Your task to perform on an android device: turn pop-ups on in chrome Image 0: 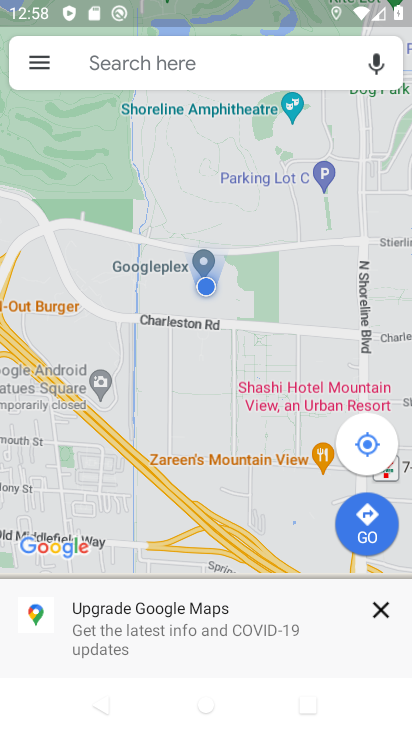
Step 0: press home button
Your task to perform on an android device: turn pop-ups on in chrome Image 1: 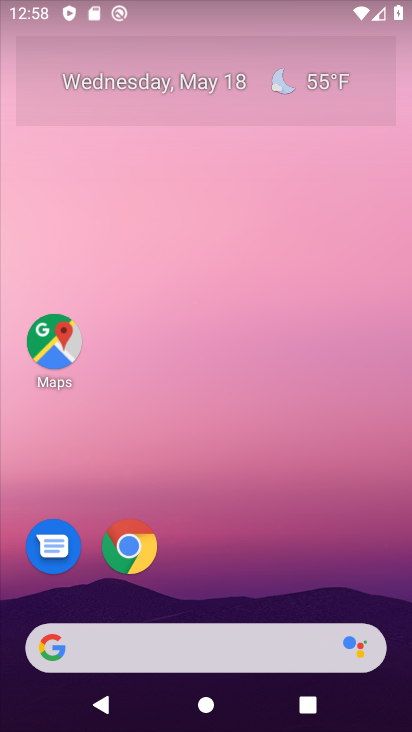
Step 1: drag from (295, 410) to (295, 45)
Your task to perform on an android device: turn pop-ups on in chrome Image 2: 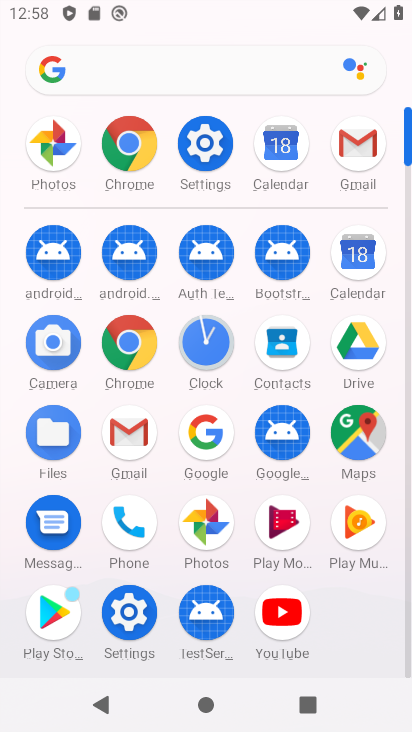
Step 2: click (149, 354)
Your task to perform on an android device: turn pop-ups on in chrome Image 3: 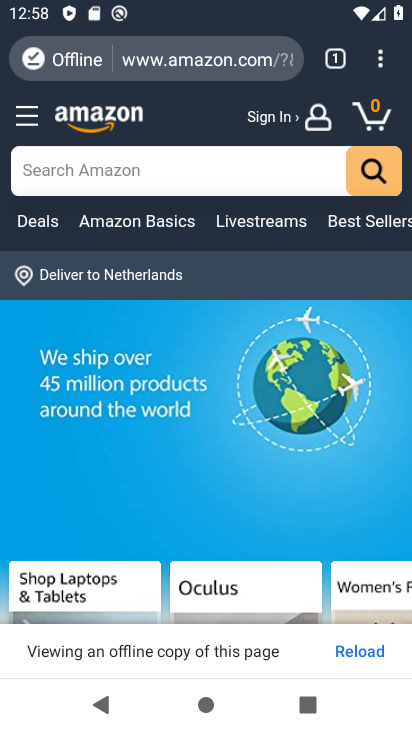
Step 3: drag from (386, 59) to (231, 584)
Your task to perform on an android device: turn pop-ups on in chrome Image 4: 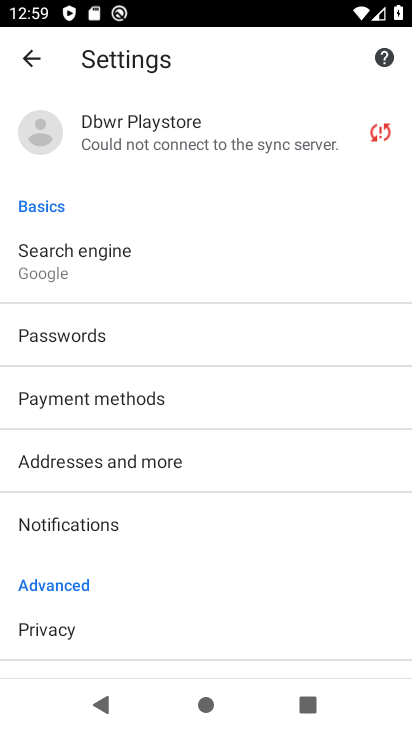
Step 4: drag from (268, 584) to (316, 204)
Your task to perform on an android device: turn pop-ups on in chrome Image 5: 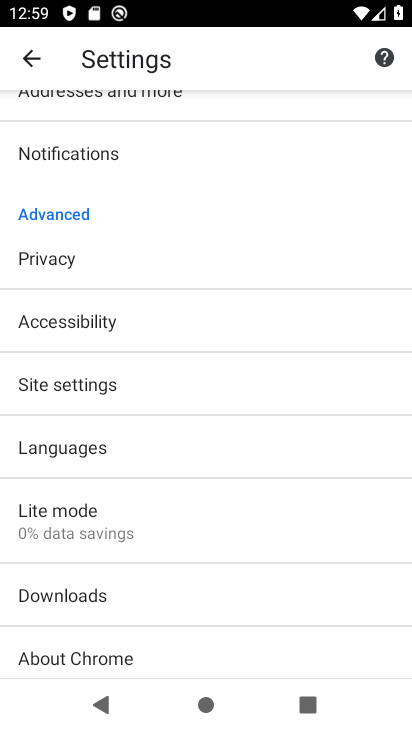
Step 5: click (153, 387)
Your task to perform on an android device: turn pop-ups on in chrome Image 6: 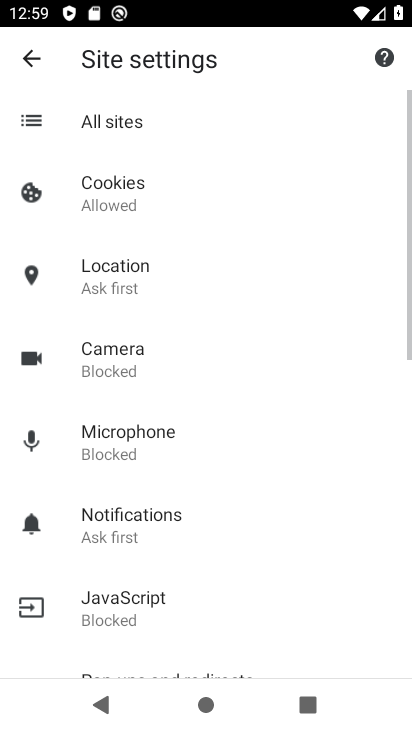
Step 6: drag from (275, 525) to (273, 233)
Your task to perform on an android device: turn pop-ups on in chrome Image 7: 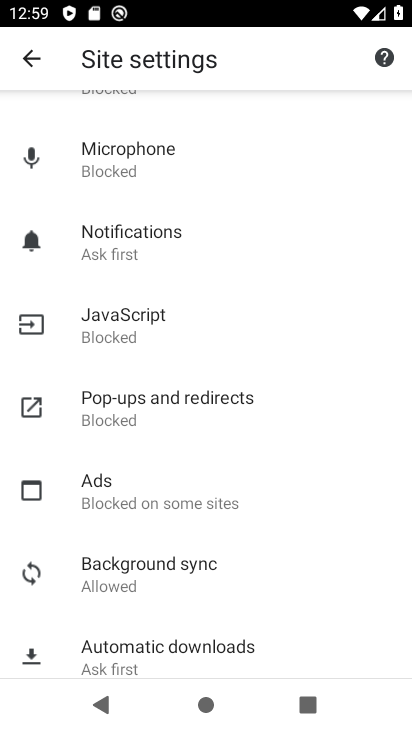
Step 7: click (232, 417)
Your task to perform on an android device: turn pop-ups on in chrome Image 8: 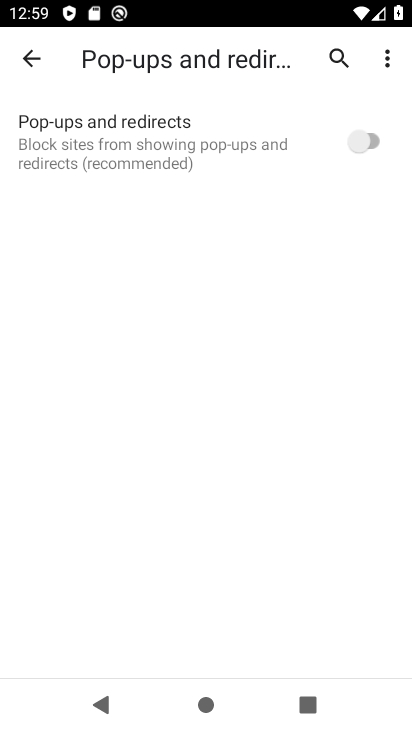
Step 8: click (371, 137)
Your task to perform on an android device: turn pop-ups on in chrome Image 9: 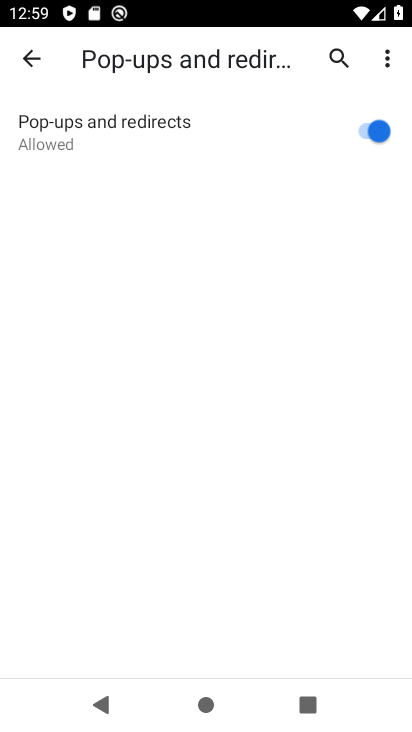
Step 9: task complete